Your task to perform on an android device: open sync settings in chrome Image 0: 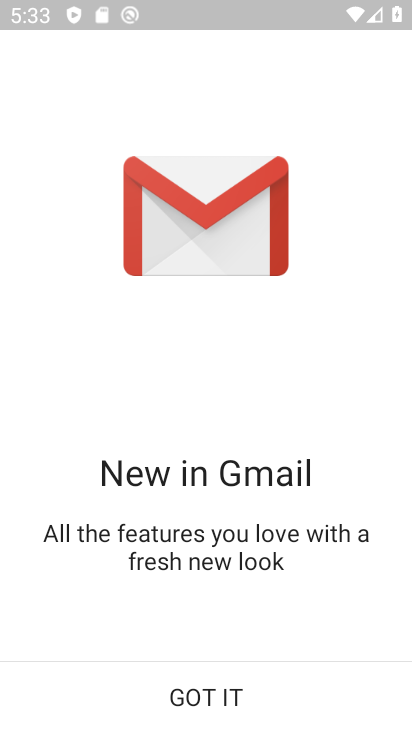
Step 0: press back button
Your task to perform on an android device: open sync settings in chrome Image 1: 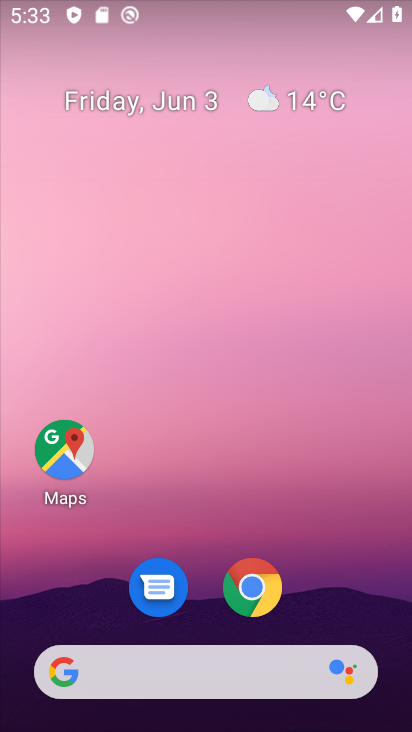
Step 1: drag from (336, 565) to (222, 63)
Your task to perform on an android device: open sync settings in chrome Image 2: 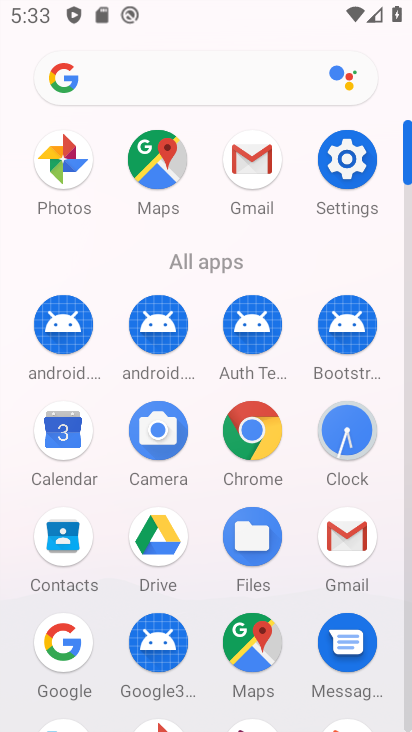
Step 2: drag from (12, 598) to (26, 235)
Your task to perform on an android device: open sync settings in chrome Image 3: 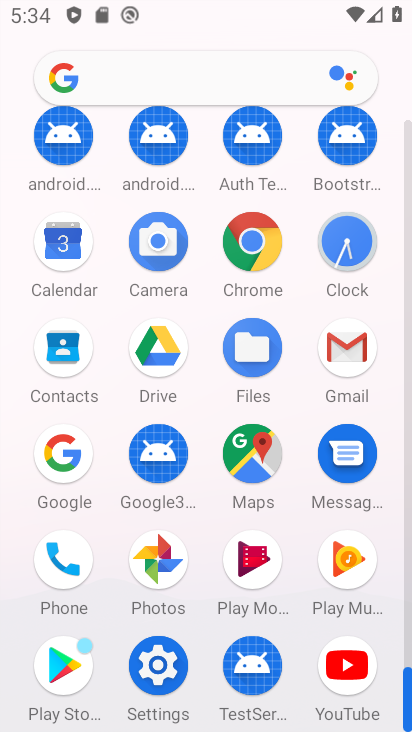
Step 3: click (247, 239)
Your task to perform on an android device: open sync settings in chrome Image 4: 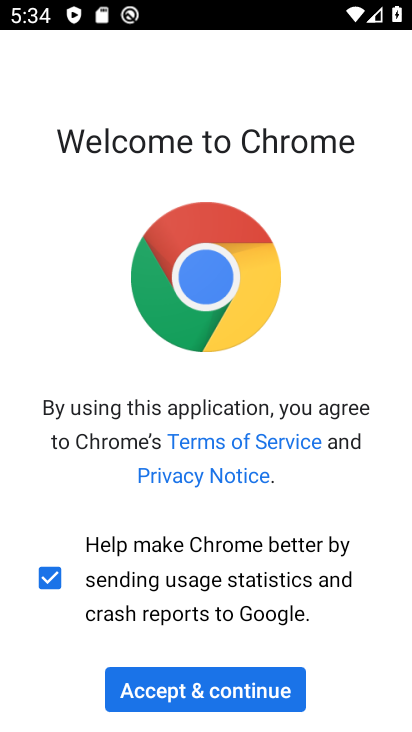
Step 4: click (245, 680)
Your task to perform on an android device: open sync settings in chrome Image 5: 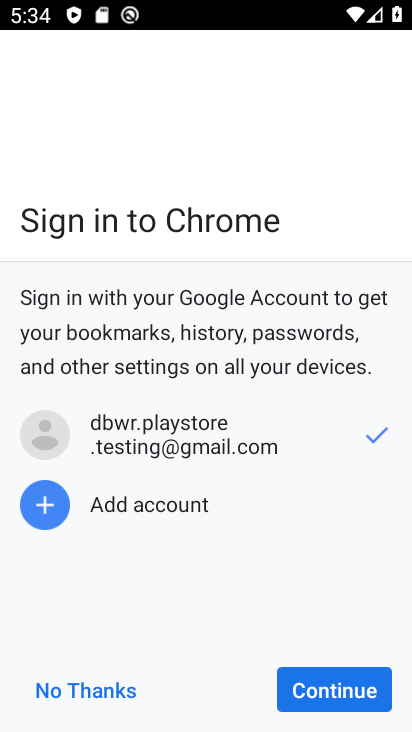
Step 5: click (342, 685)
Your task to perform on an android device: open sync settings in chrome Image 6: 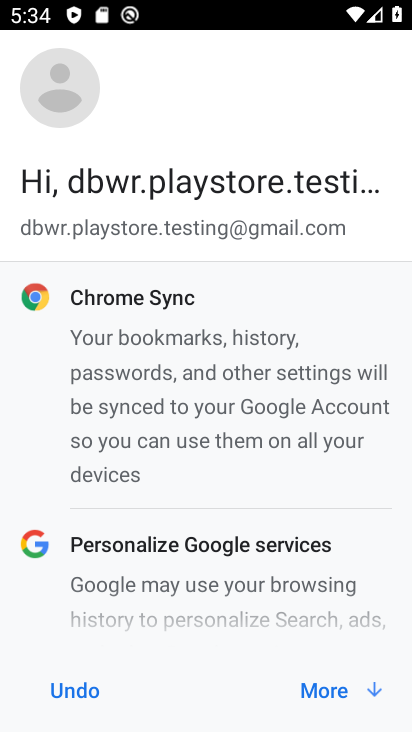
Step 6: click (331, 686)
Your task to perform on an android device: open sync settings in chrome Image 7: 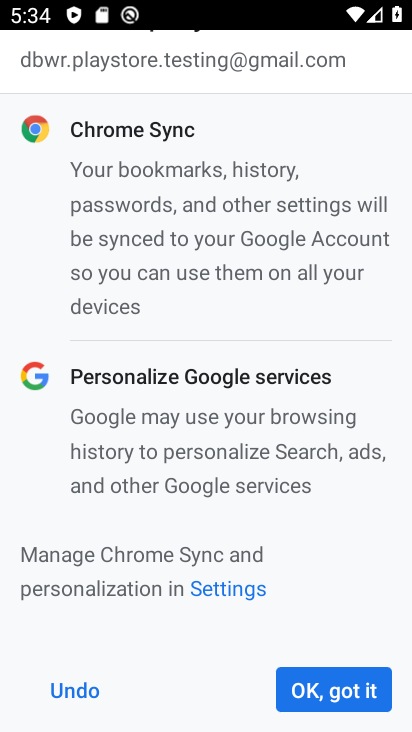
Step 7: click (331, 686)
Your task to perform on an android device: open sync settings in chrome Image 8: 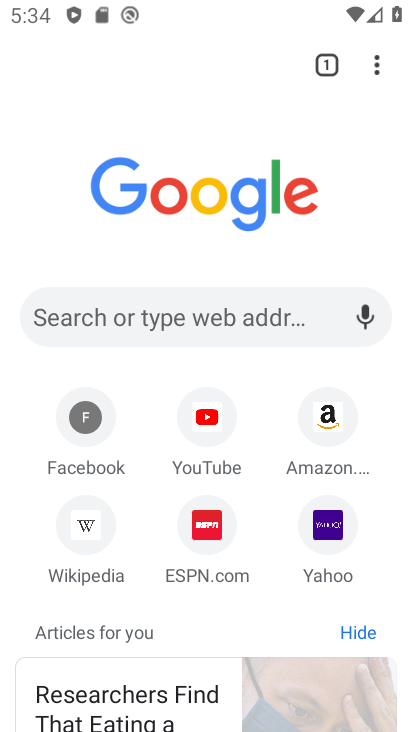
Step 8: drag from (376, 65) to (145, 533)
Your task to perform on an android device: open sync settings in chrome Image 9: 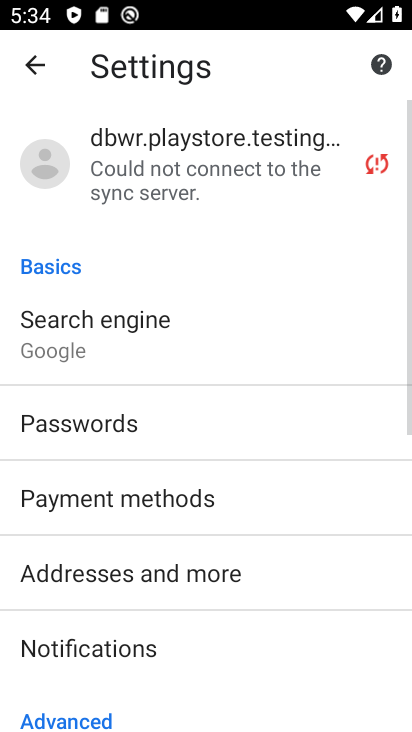
Step 9: click (177, 161)
Your task to perform on an android device: open sync settings in chrome Image 10: 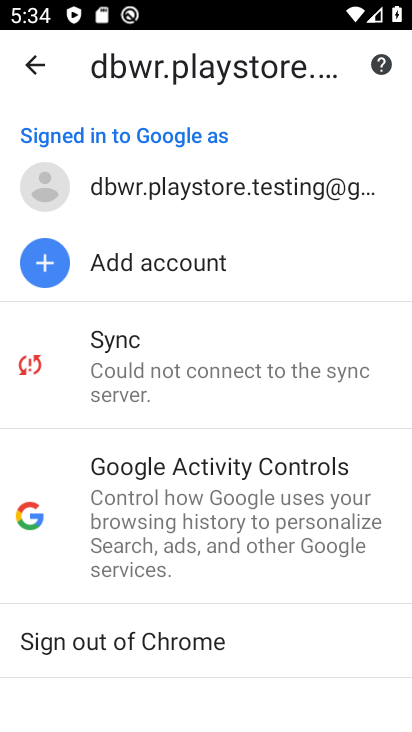
Step 10: click (146, 354)
Your task to perform on an android device: open sync settings in chrome Image 11: 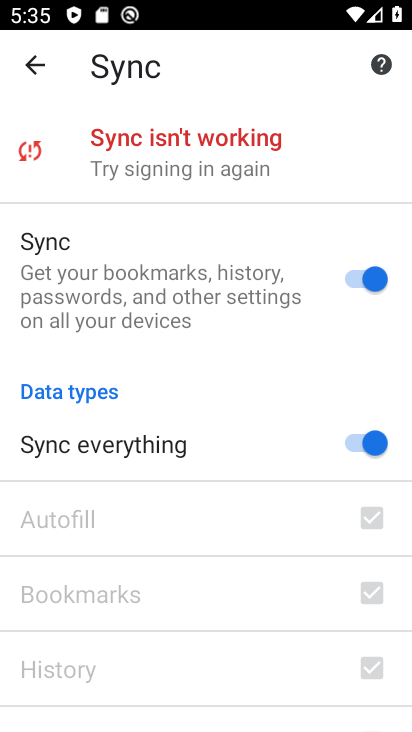
Step 11: task complete